Your task to perform on an android device: Open Chrome and go to settings Image 0: 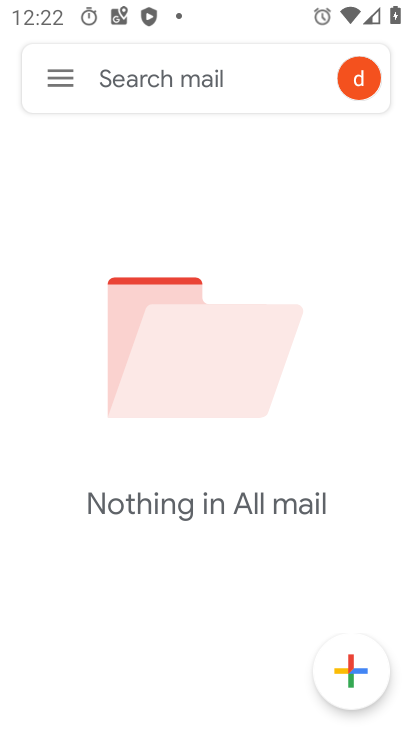
Step 0: press home button
Your task to perform on an android device: Open Chrome and go to settings Image 1: 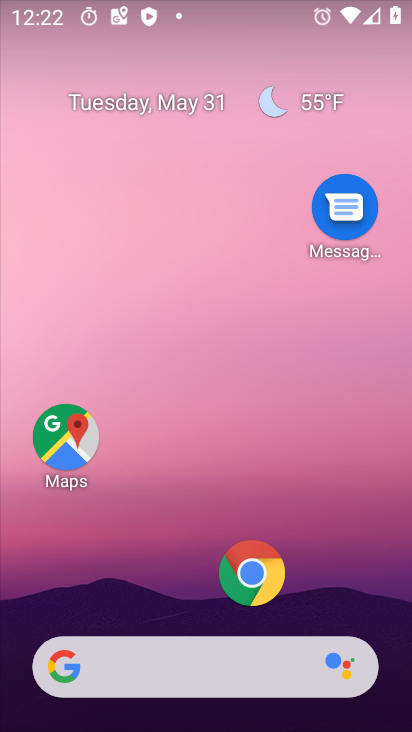
Step 1: click (259, 574)
Your task to perform on an android device: Open Chrome and go to settings Image 2: 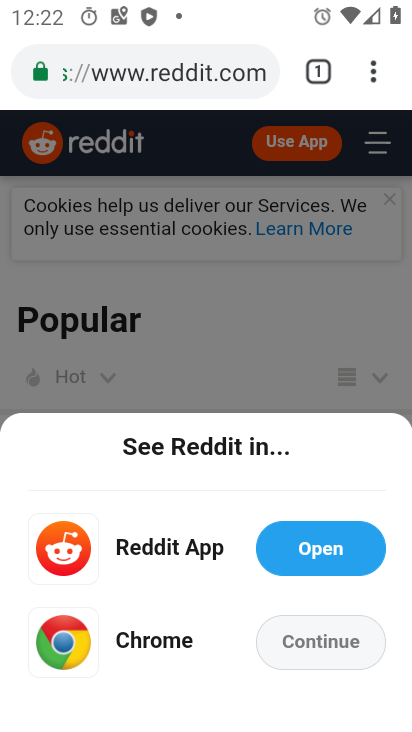
Step 2: click (374, 63)
Your task to perform on an android device: Open Chrome and go to settings Image 3: 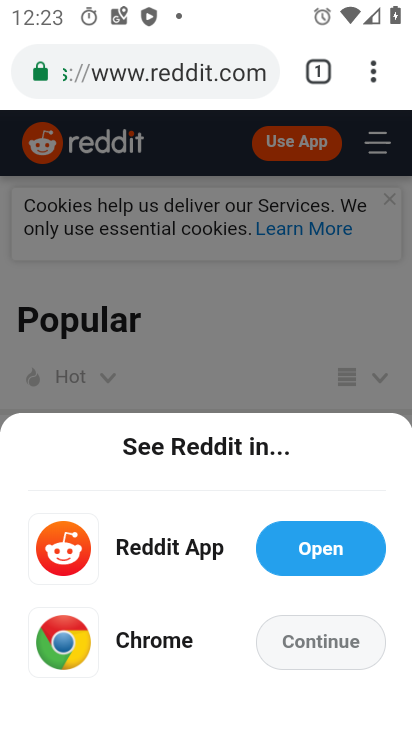
Step 3: click (367, 62)
Your task to perform on an android device: Open Chrome and go to settings Image 4: 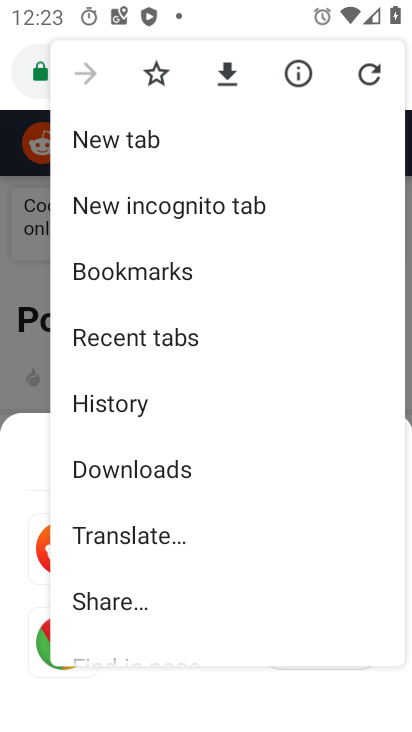
Step 4: drag from (191, 572) to (208, 275)
Your task to perform on an android device: Open Chrome and go to settings Image 5: 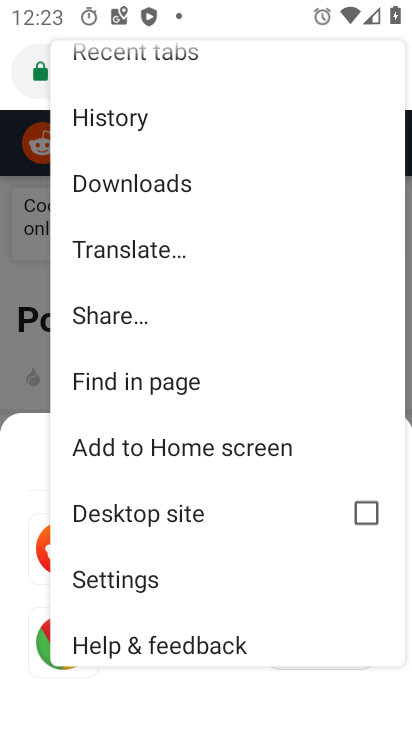
Step 5: click (160, 588)
Your task to perform on an android device: Open Chrome and go to settings Image 6: 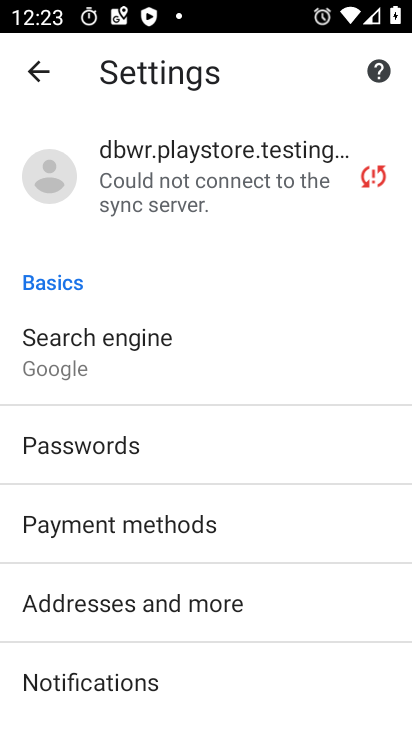
Step 6: task complete